Your task to perform on an android device: turn on the 12-hour format for clock Image 0: 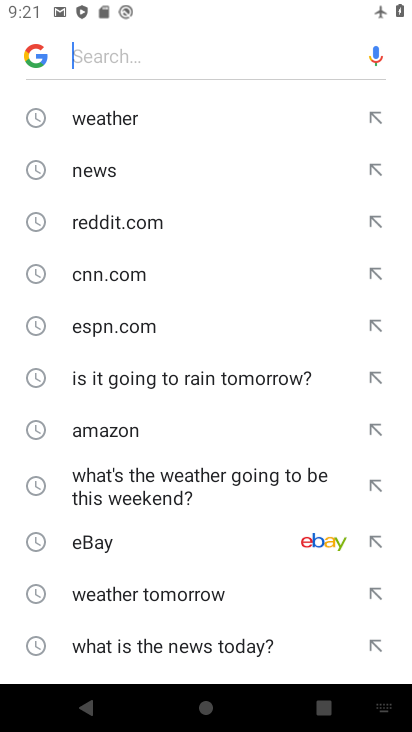
Step 0: press home button
Your task to perform on an android device: turn on the 12-hour format for clock Image 1: 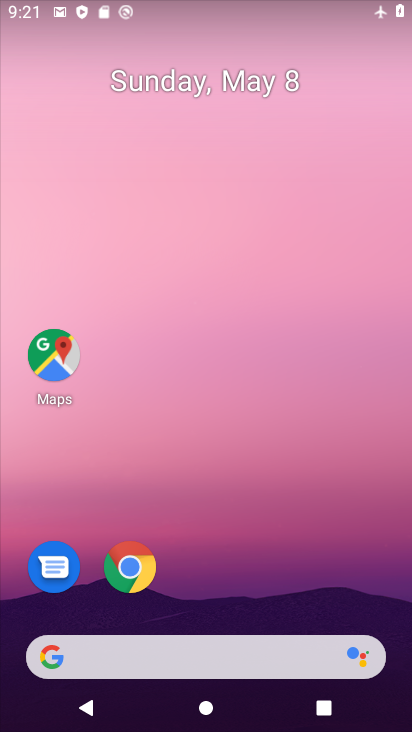
Step 1: drag from (191, 724) to (172, 238)
Your task to perform on an android device: turn on the 12-hour format for clock Image 2: 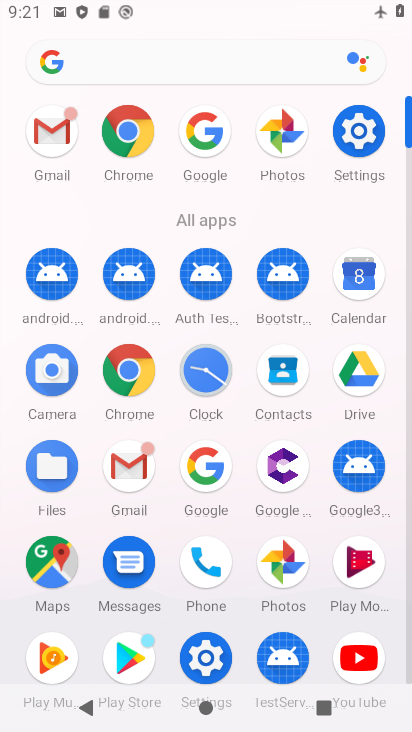
Step 2: click (204, 372)
Your task to perform on an android device: turn on the 12-hour format for clock Image 3: 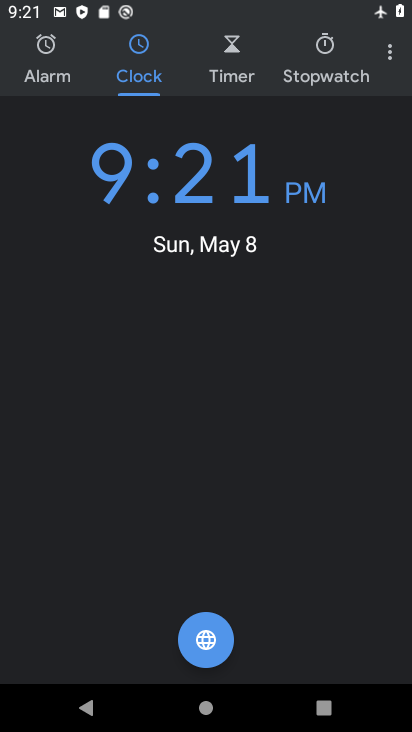
Step 3: click (394, 53)
Your task to perform on an android device: turn on the 12-hour format for clock Image 4: 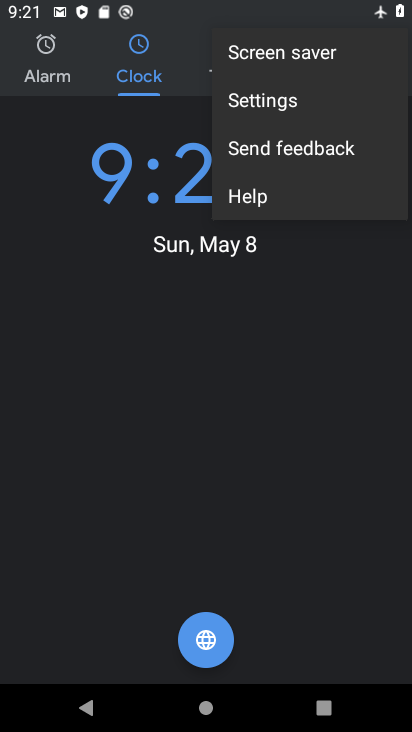
Step 4: click (279, 99)
Your task to perform on an android device: turn on the 12-hour format for clock Image 5: 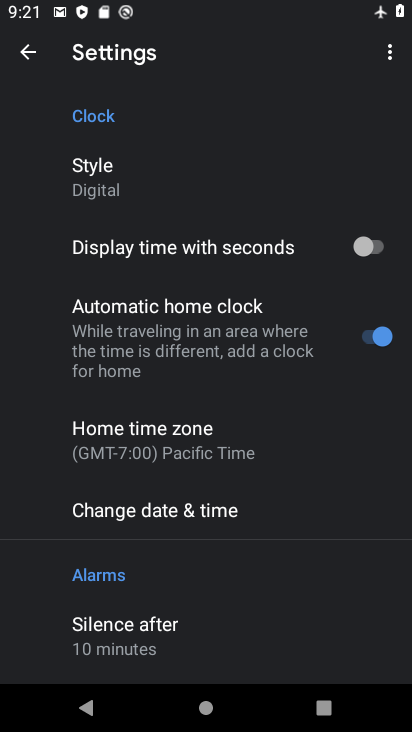
Step 5: drag from (202, 652) to (203, 248)
Your task to perform on an android device: turn on the 12-hour format for clock Image 6: 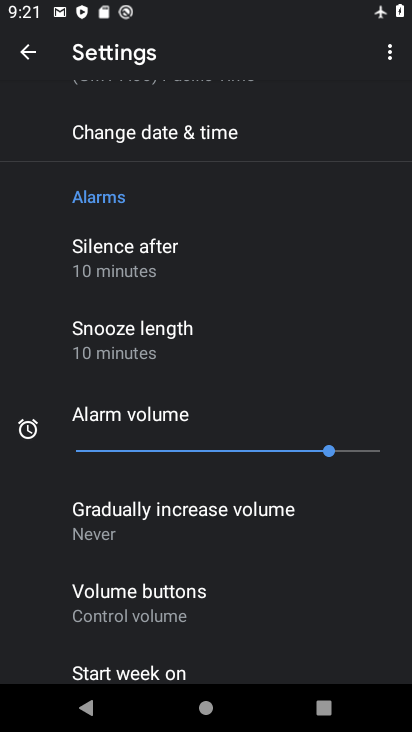
Step 6: drag from (207, 646) to (205, 268)
Your task to perform on an android device: turn on the 12-hour format for clock Image 7: 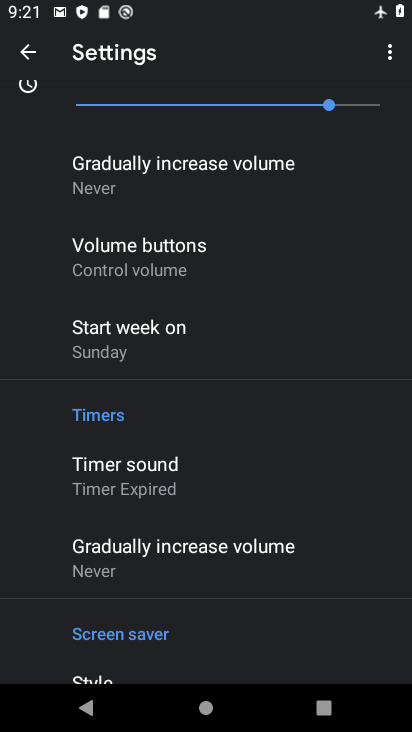
Step 7: drag from (225, 633) to (235, 464)
Your task to perform on an android device: turn on the 12-hour format for clock Image 8: 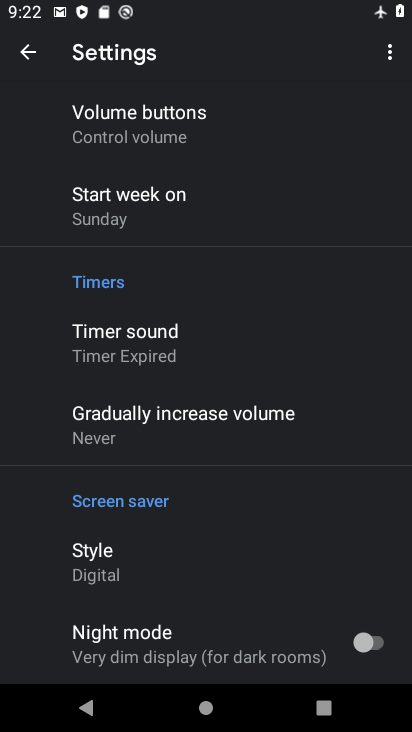
Step 8: drag from (231, 190) to (228, 412)
Your task to perform on an android device: turn on the 12-hour format for clock Image 9: 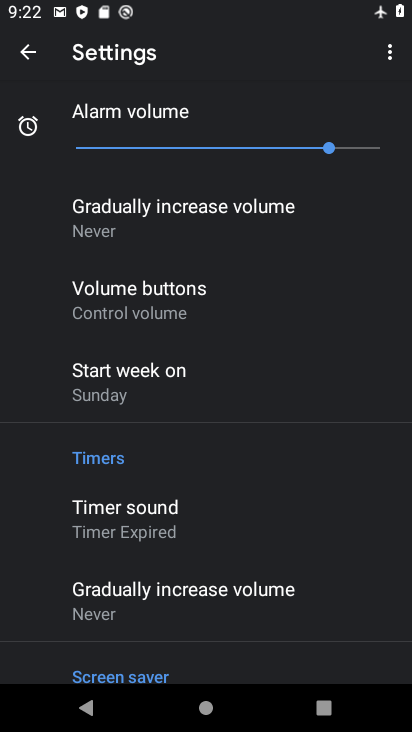
Step 9: drag from (213, 193) to (226, 520)
Your task to perform on an android device: turn on the 12-hour format for clock Image 10: 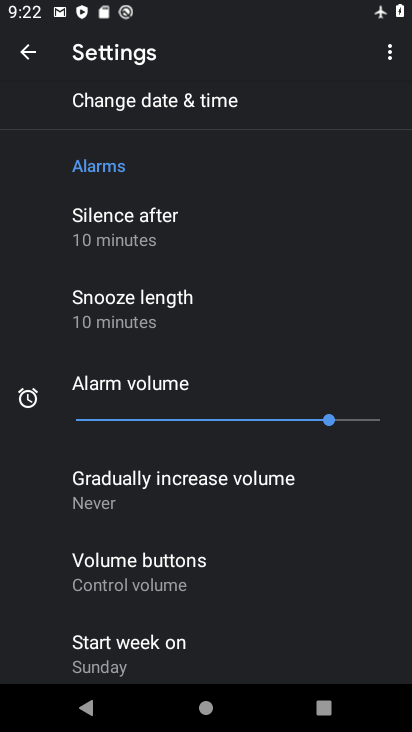
Step 10: click (152, 103)
Your task to perform on an android device: turn on the 12-hour format for clock Image 11: 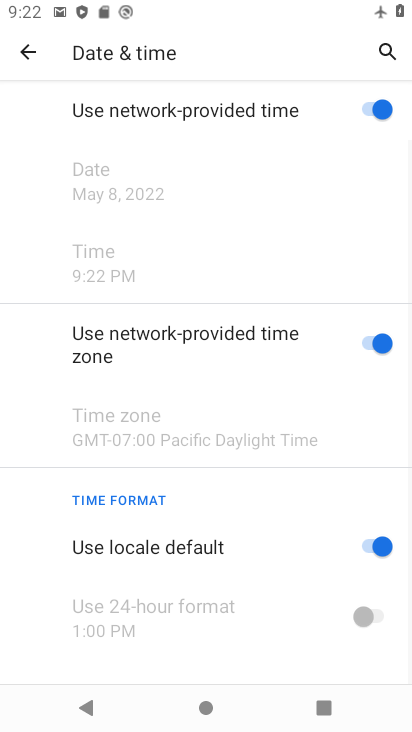
Step 11: task complete